Your task to perform on an android device: turn off airplane mode Image 0: 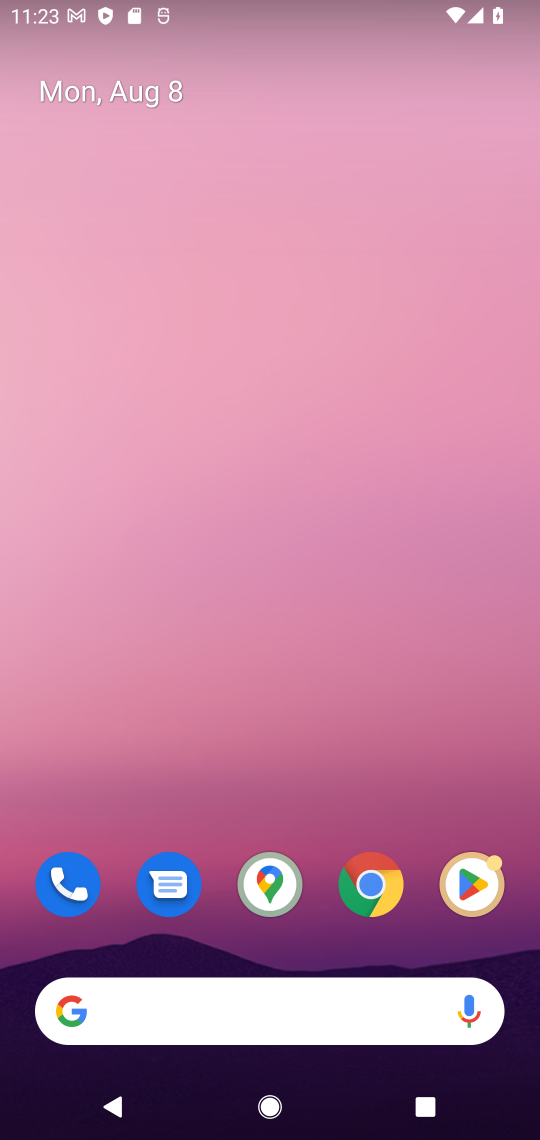
Step 0: drag from (194, 966) to (262, 50)
Your task to perform on an android device: turn off airplane mode Image 1: 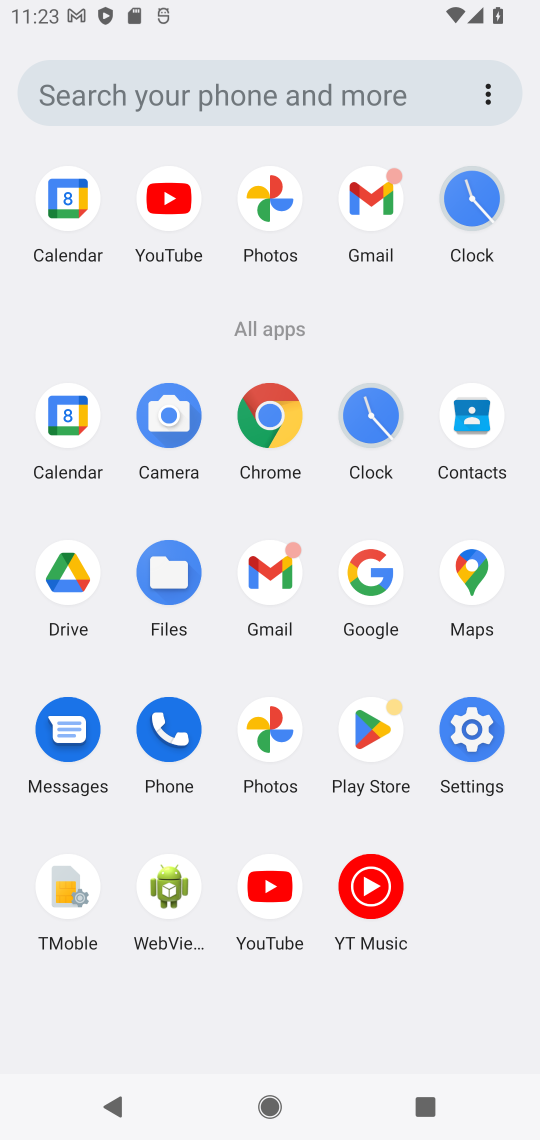
Step 1: click (459, 734)
Your task to perform on an android device: turn off airplane mode Image 2: 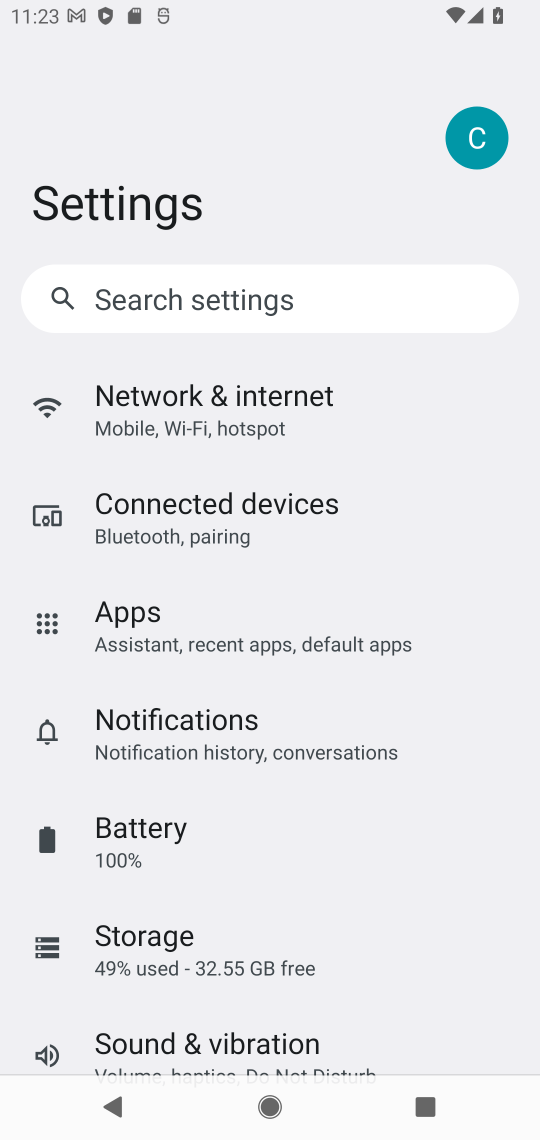
Step 2: click (249, 426)
Your task to perform on an android device: turn off airplane mode Image 3: 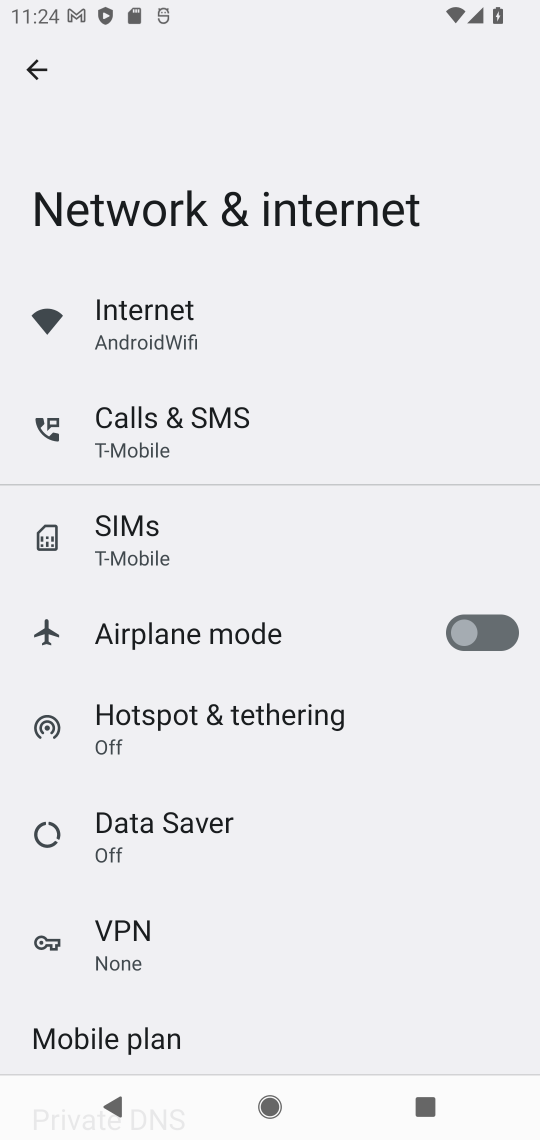
Step 3: task complete